Your task to perform on an android device: Open the stopwatch Image 0: 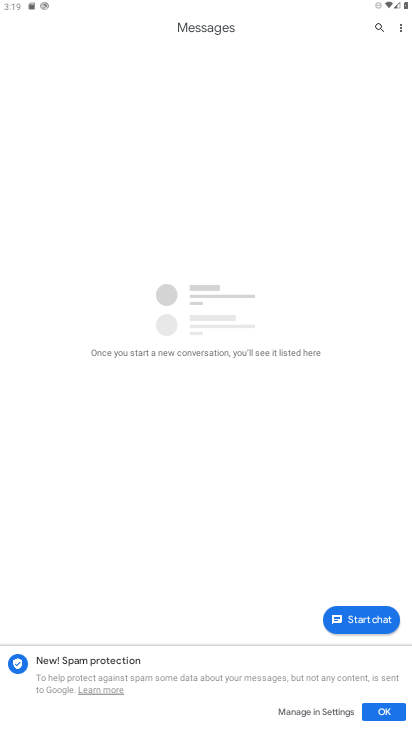
Step 0: press home button
Your task to perform on an android device: Open the stopwatch Image 1: 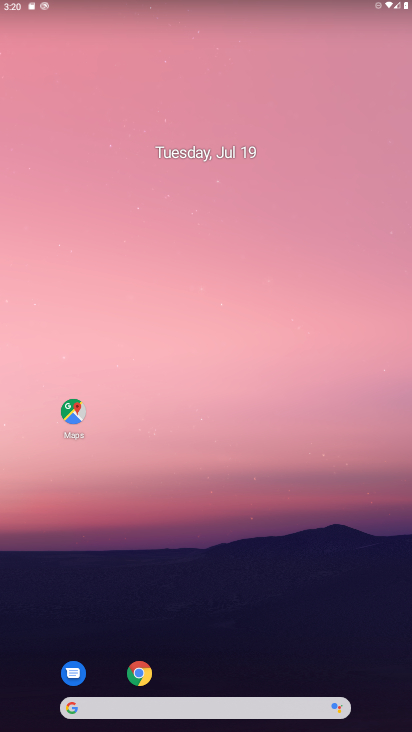
Step 1: drag from (215, 659) to (267, 66)
Your task to perform on an android device: Open the stopwatch Image 2: 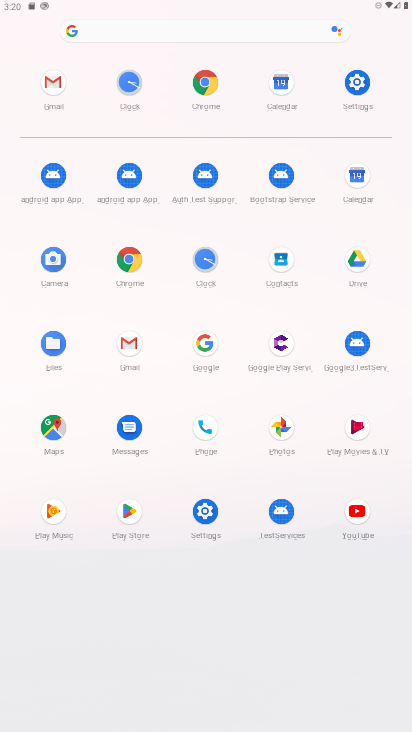
Step 2: click (217, 272)
Your task to perform on an android device: Open the stopwatch Image 3: 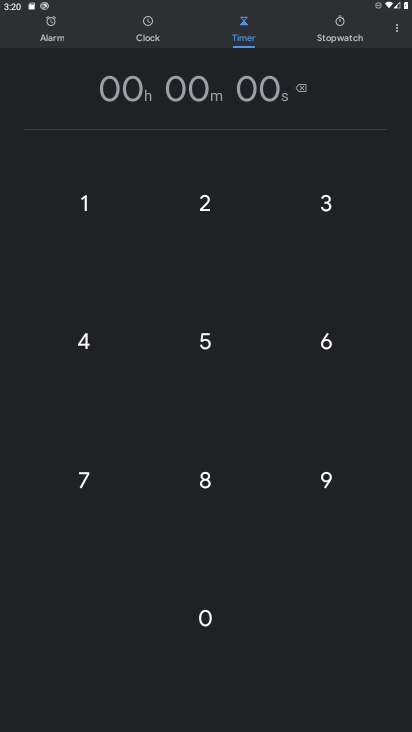
Step 3: click (339, 34)
Your task to perform on an android device: Open the stopwatch Image 4: 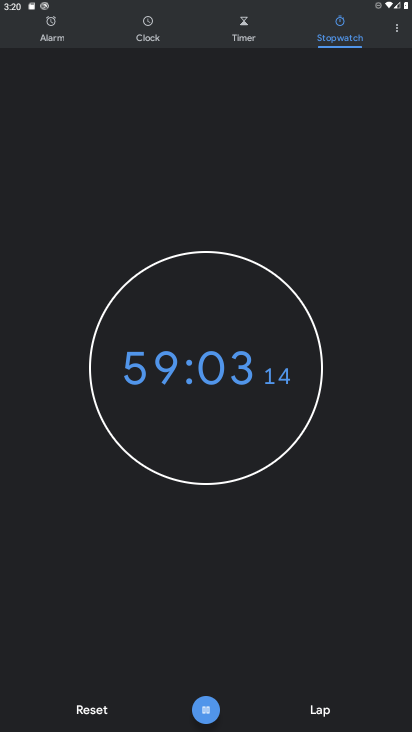
Step 4: click (76, 702)
Your task to perform on an android device: Open the stopwatch Image 5: 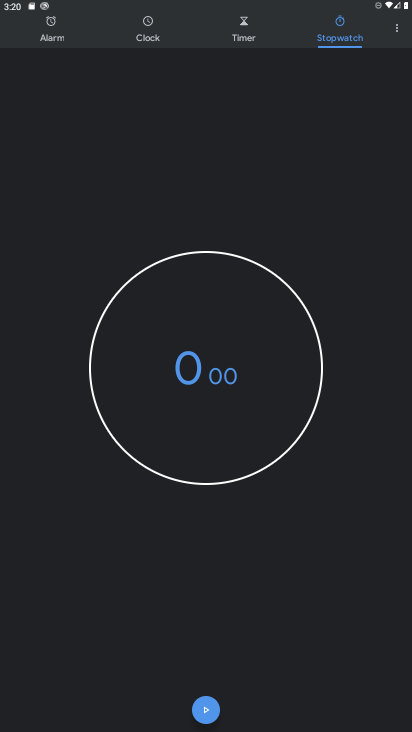
Step 5: click (204, 712)
Your task to perform on an android device: Open the stopwatch Image 6: 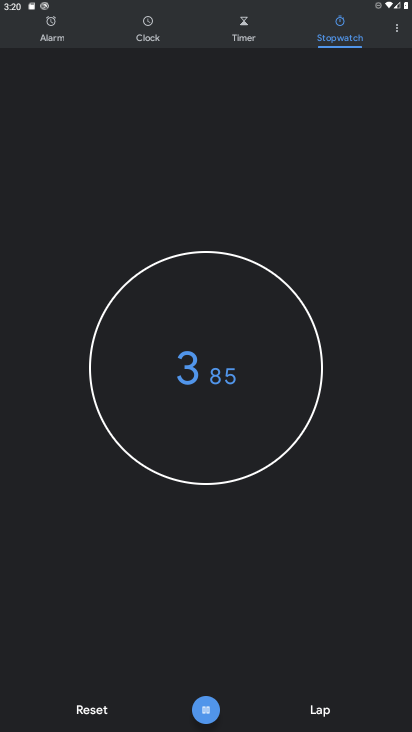
Step 6: task complete